Your task to perform on an android device: Go to wifi settings Image 0: 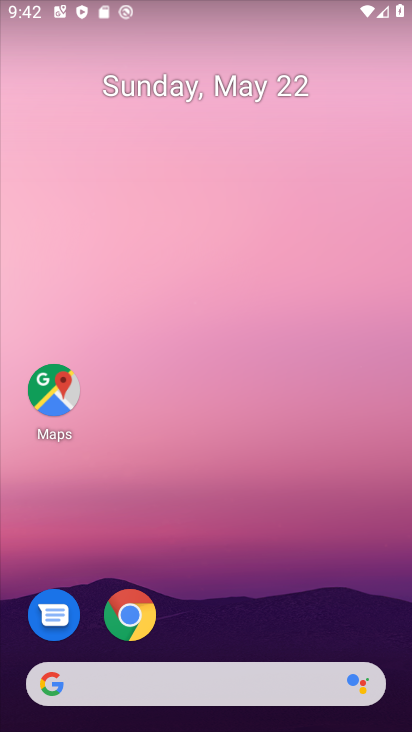
Step 0: drag from (303, 578) to (319, 85)
Your task to perform on an android device: Go to wifi settings Image 1: 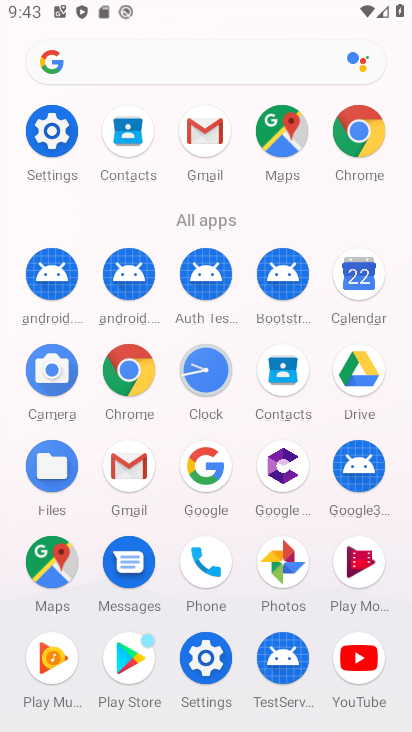
Step 1: click (69, 132)
Your task to perform on an android device: Go to wifi settings Image 2: 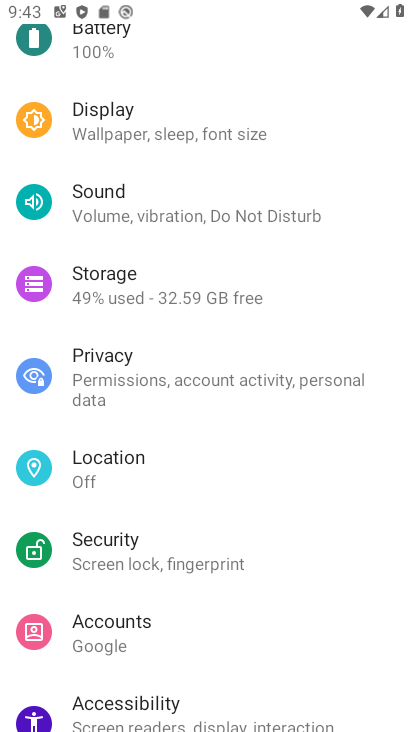
Step 2: drag from (181, 92) to (310, 708)
Your task to perform on an android device: Go to wifi settings Image 3: 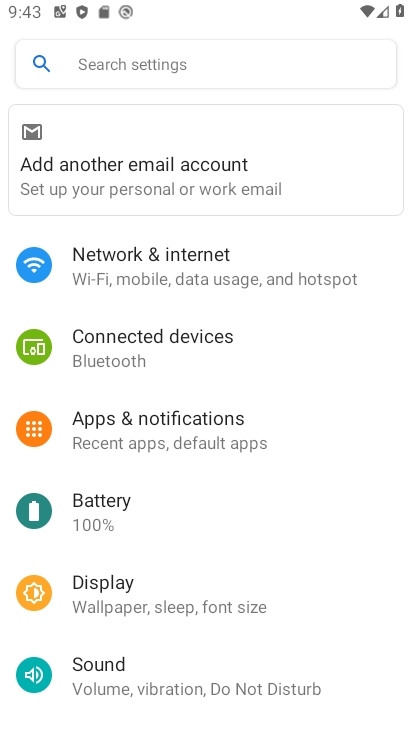
Step 3: click (215, 272)
Your task to perform on an android device: Go to wifi settings Image 4: 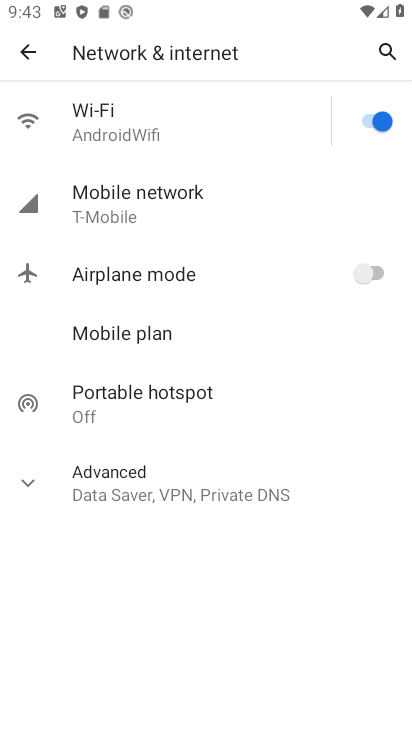
Step 4: click (232, 135)
Your task to perform on an android device: Go to wifi settings Image 5: 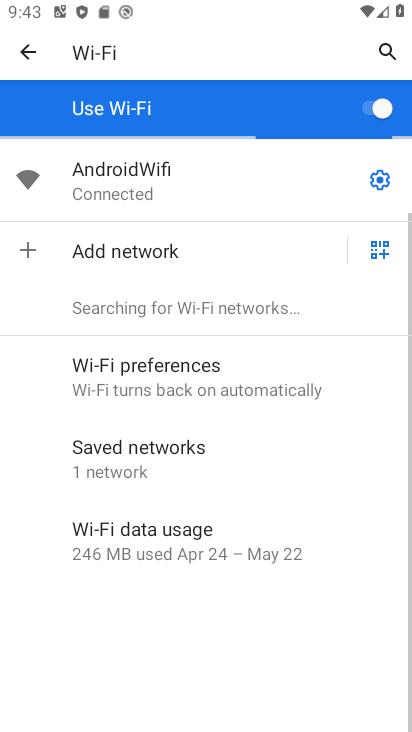
Step 5: click (383, 172)
Your task to perform on an android device: Go to wifi settings Image 6: 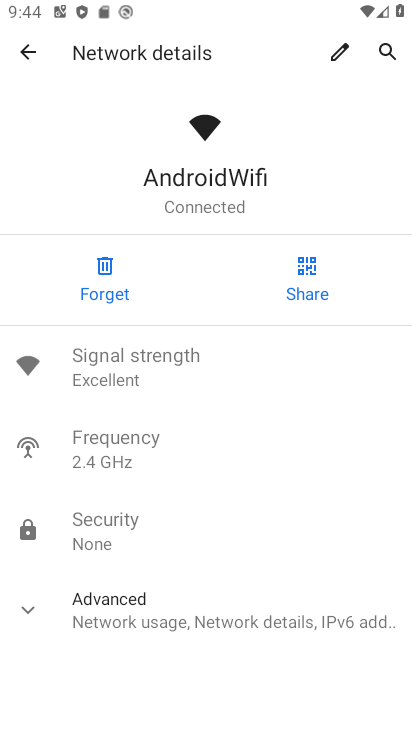
Step 6: task complete